Your task to perform on an android device: Do I have any events this weekend? Image 0: 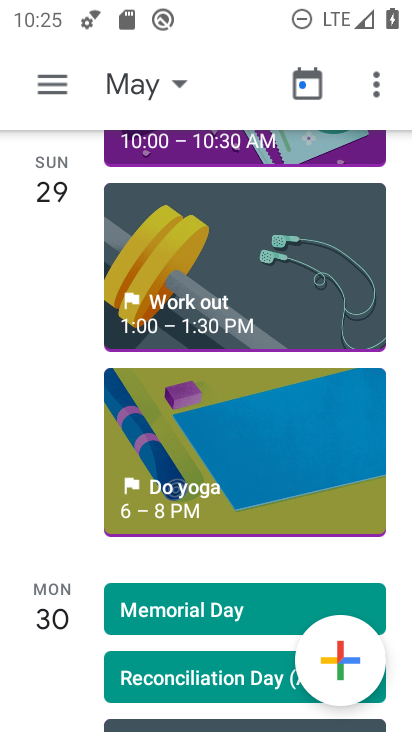
Step 0: drag from (218, 291) to (283, 685)
Your task to perform on an android device: Do I have any events this weekend? Image 1: 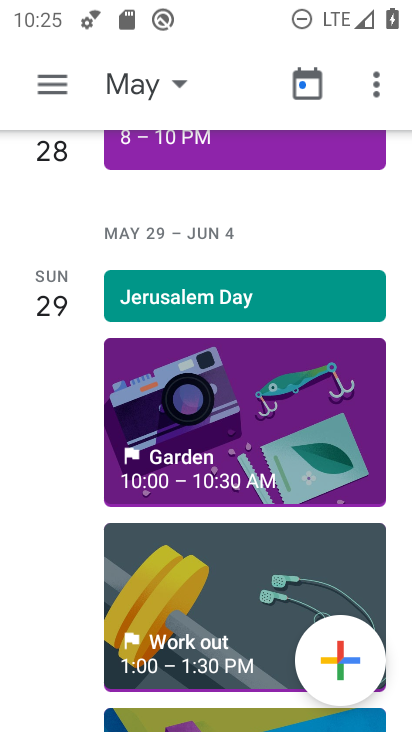
Step 1: task complete